Your task to perform on an android device: Show the shopping cart on bestbuy.com. Search for usb-a on bestbuy.com, select the first entry, and add it to the cart. Image 0: 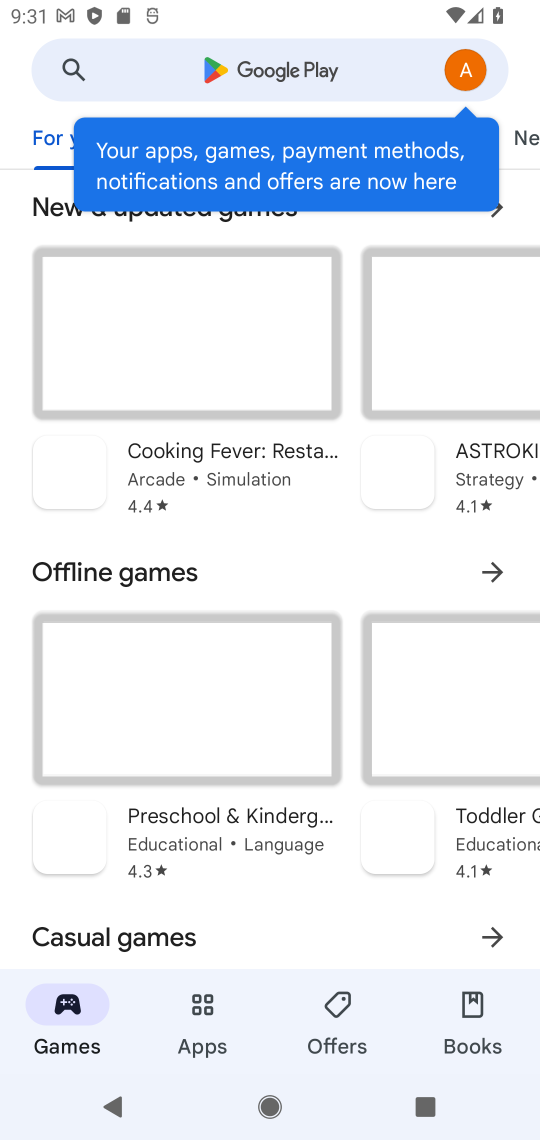
Step 0: press home button
Your task to perform on an android device: Show the shopping cart on bestbuy.com. Search for usb-a on bestbuy.com, select the first entry, and add it to the cart. Image 1: 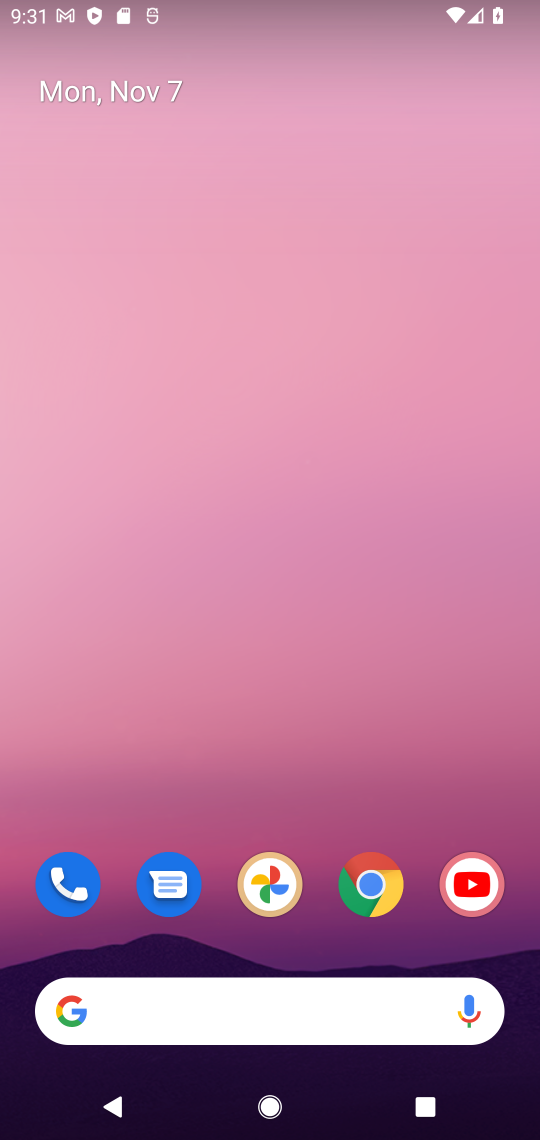
Step 1: click (375, 893)
Your task to perform on an android device: Show the shopping cart on bestbuy.com. Search for usb-a on bestbuy.com, select the first entry, and add it to the cart. Image 2: 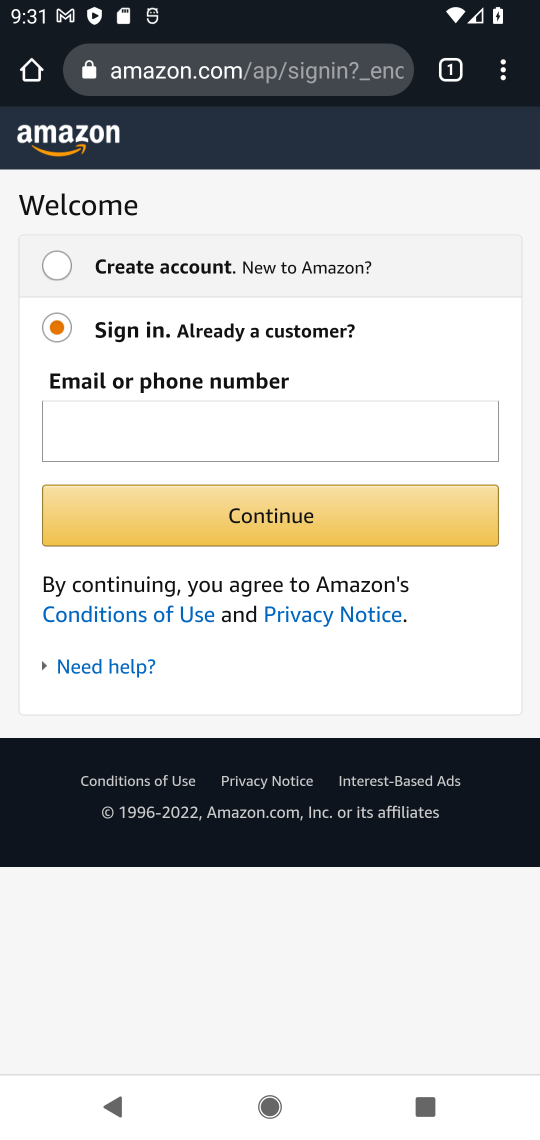
Step 2: click (341, 70)
Your task to perform on an android device: Show the shopping cart on bestbuy.com. Search for usb-a on bestbuy.com, select the first entry, and add it to the cart. Image 3: 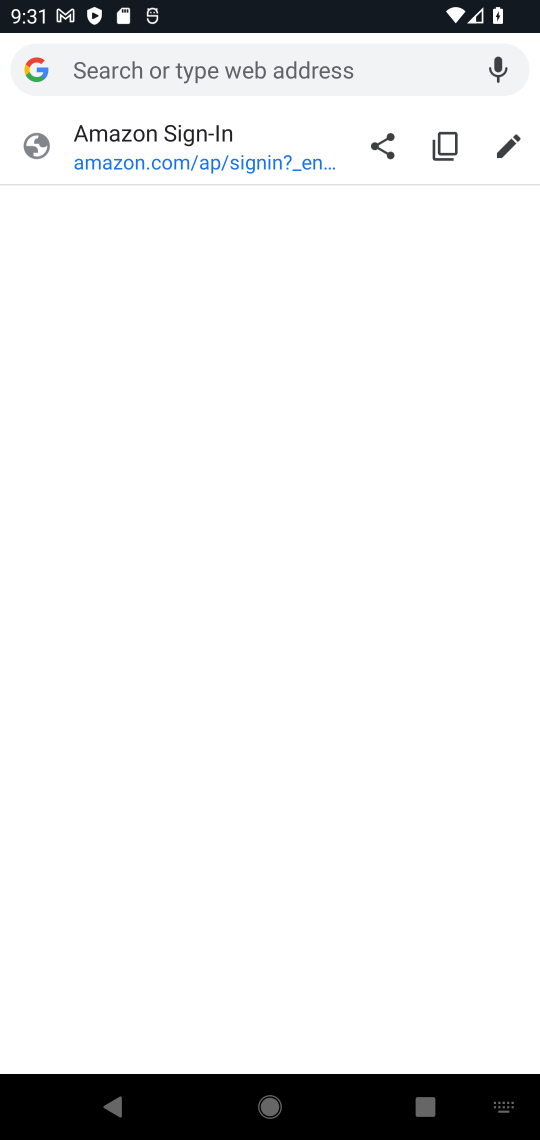
Step 3: type " bestbuy.com"
Your task to perform on an android device: Show the shopping cart on bestbuy.com. Search for usb-a on bestbuy.com, select the first entry, and add it to the cart. Image 4: 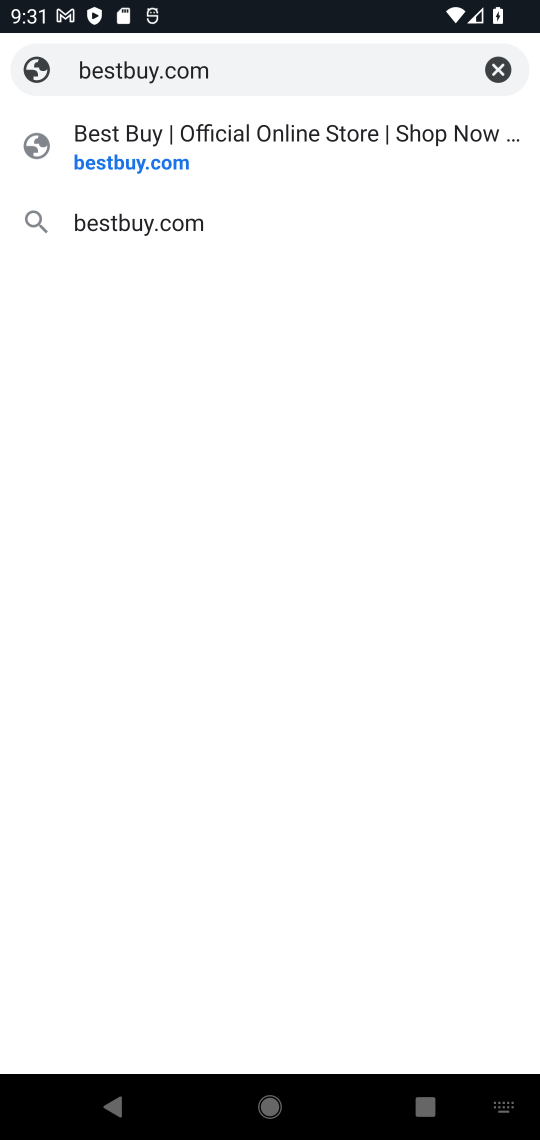
Step 4: click (152, 222)
Your task to perform on an android device: Show the shopping cart on bestbuy.com. Search for usb-a on bestbuy.com, select the first entry, and add it to the cart. Image 5: 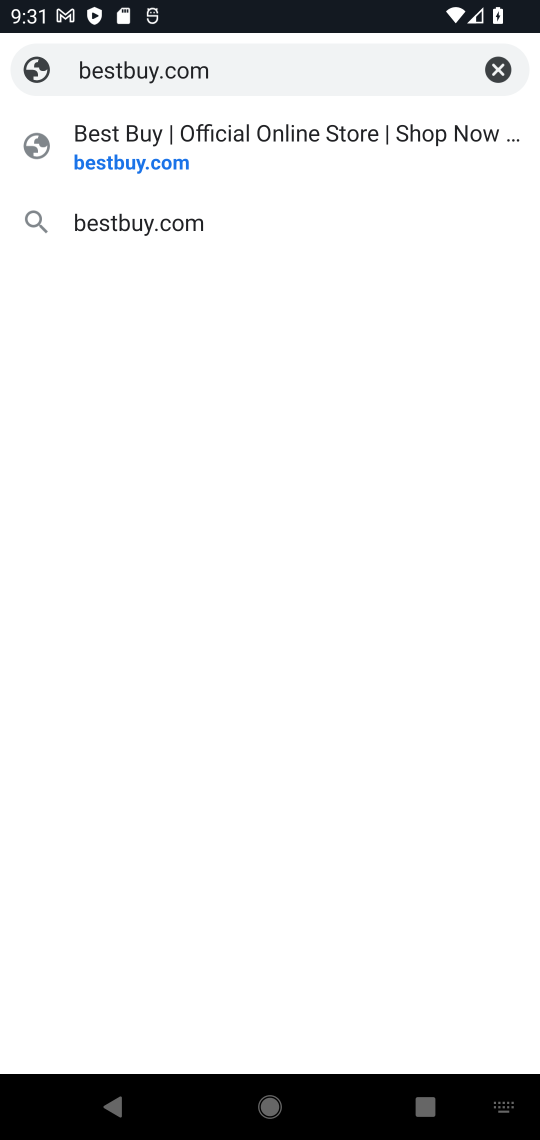
Step 5: click (152, 222)
Your task to perform on an android device: Show the shopping cart on bestbuy.com. Search for usb-a on bestbuy.com, select the first entry, and add it to the cart. Image 6: 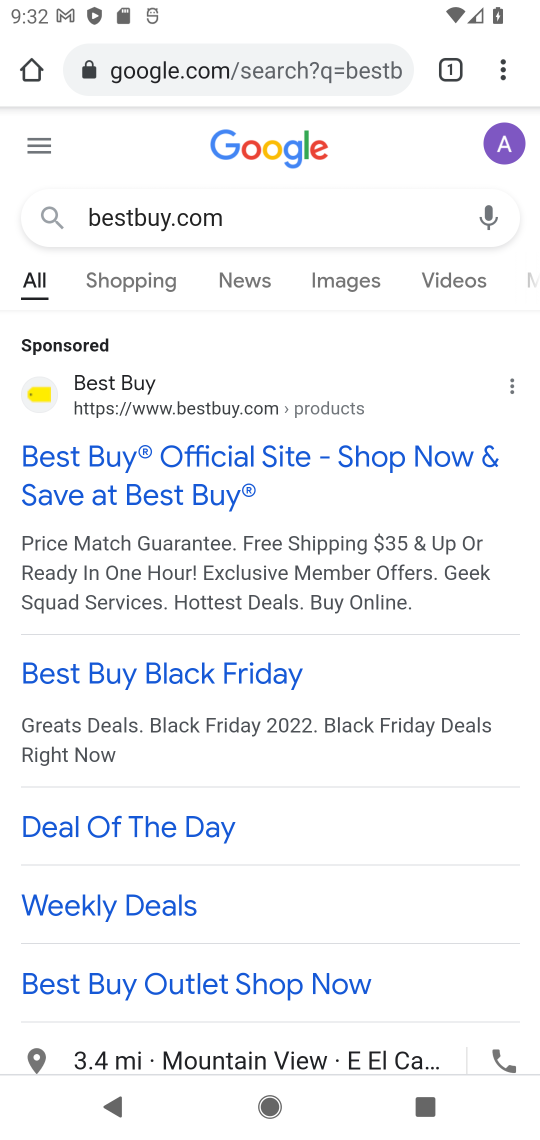
Step 6: click (167, 402)
Your task to perform on an android device: Show the shopping cart on bestbuy.com. Search for usb-a on bestbuy.com, select the first entry, and add it to the cart. Image 7: 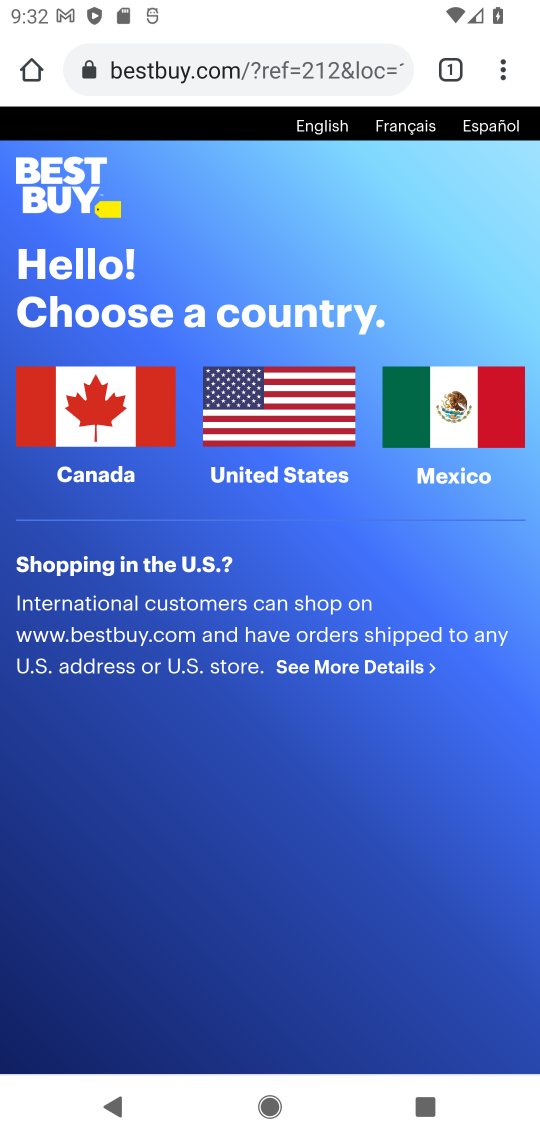
Step 7: click (293, 405)
Your task to perform on an android device: Show the shopping cart on bestbuy.com. Search for usb-a on bestbuy.com, select the first entry, and add it to the cart. Image 8: 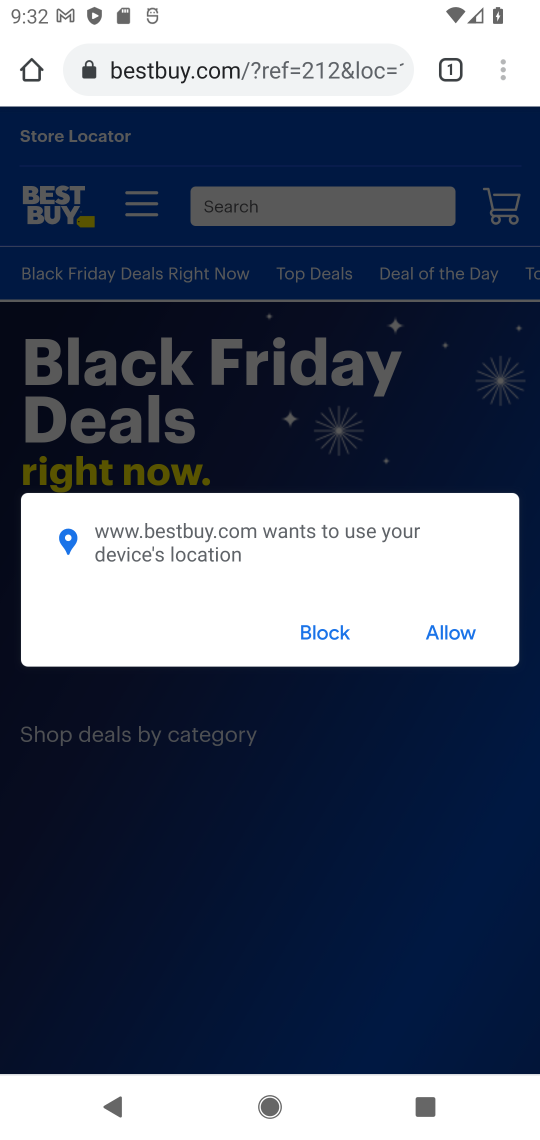
Step 8: click (309, 632)
Your task to perform on an android device: Show the shopping cart on bestbuy.com. Search for usb-a on bestbuy.com, select the first entry, and add it to the cart. Image 9: 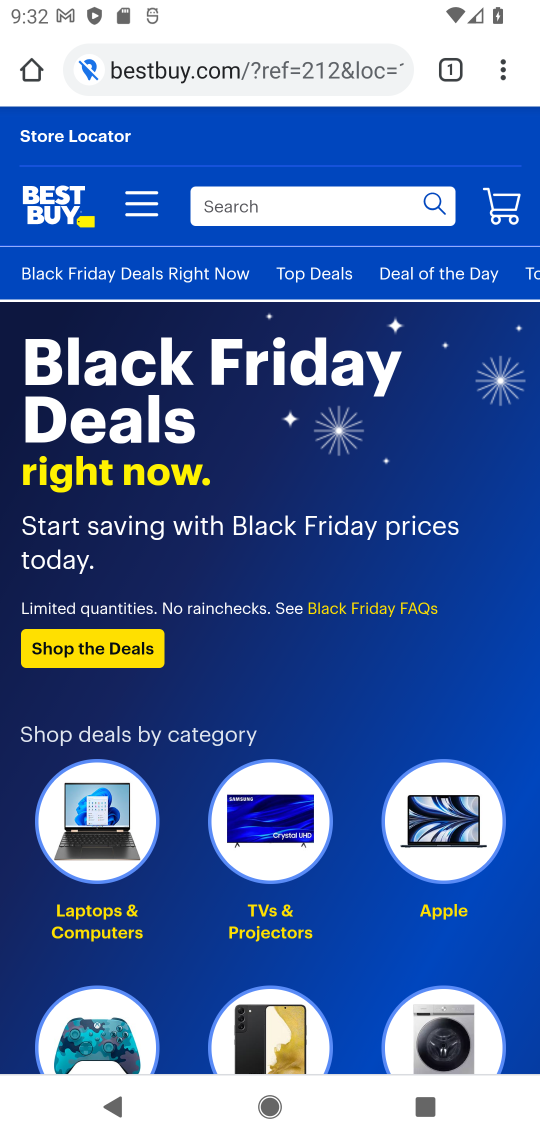
Step 9: click (512, 198)
Your task to perform on an android device: Show the shopping cart on bestbuy.com. Search for usb-a on bestbuy.com, select the first entry, and add it to the cart. Image 10: 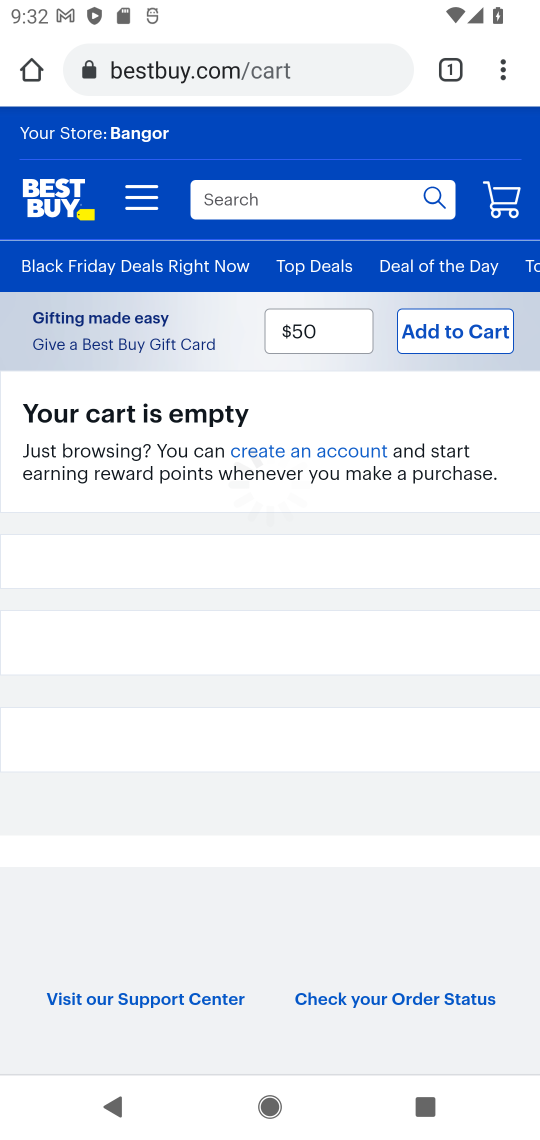
Step 10: click (254, 187)
Your task to perform on an android device: Show the shopping cart on bestbuy.com. Search for usb-a on bestbuy.com, select the first entry, and add it to the cart. Image 11: 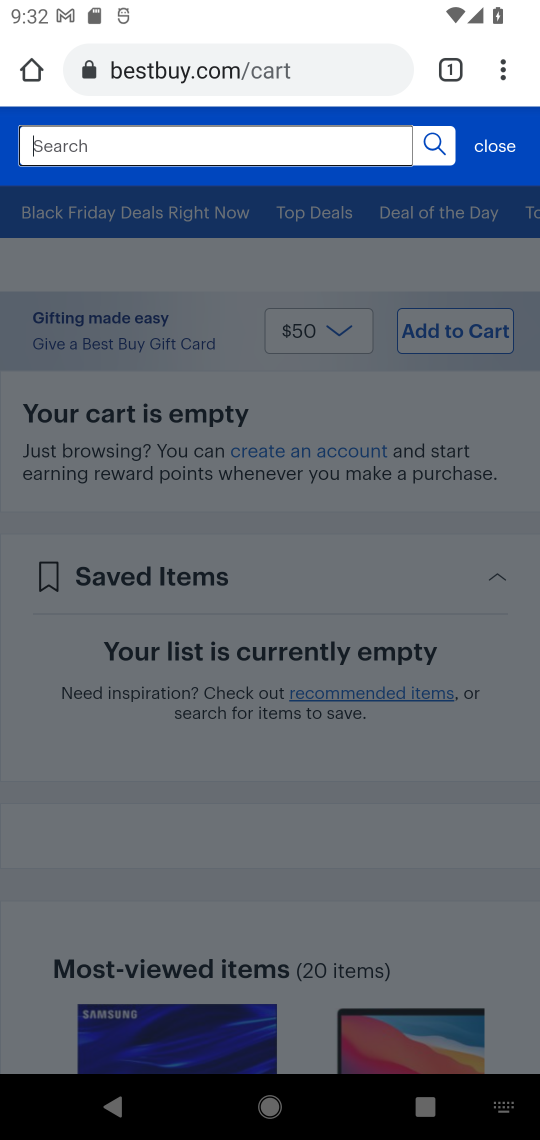
Step 11: type " usb-a"
Your task to perform on an android device: Show the shopping cart on bestbuy.com. Search for usb-a on bestbuy.com, select the first entry, and add it to the cart. Image 12: 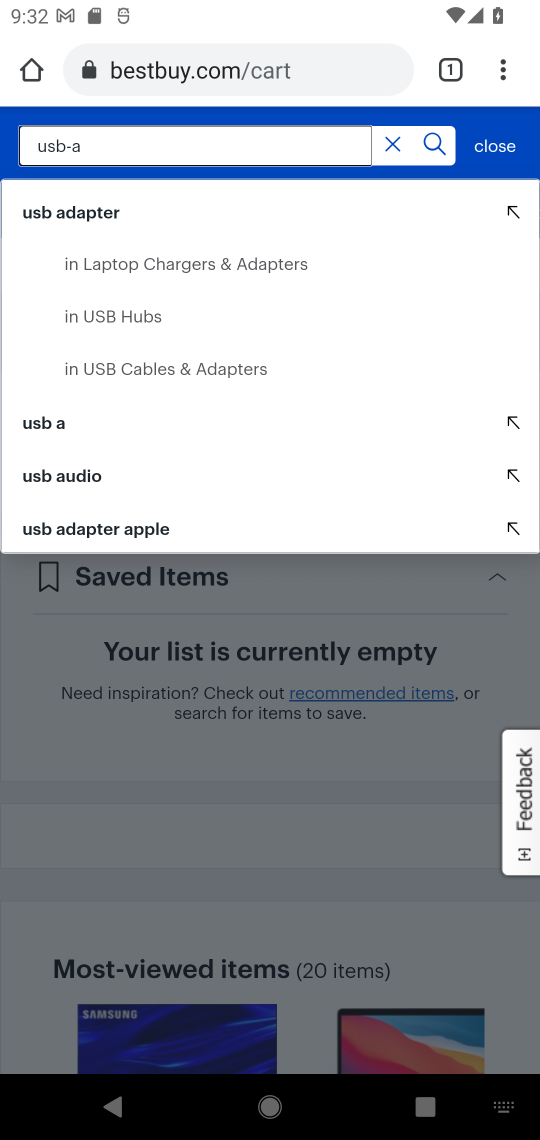
Step 12: click (46, 414)
Your task to perform on an android device: Show the shopping cart on bestbuy.com. Search for usb-a on bestbuy.com, select the first entry, and add it to the cart. Image 13: 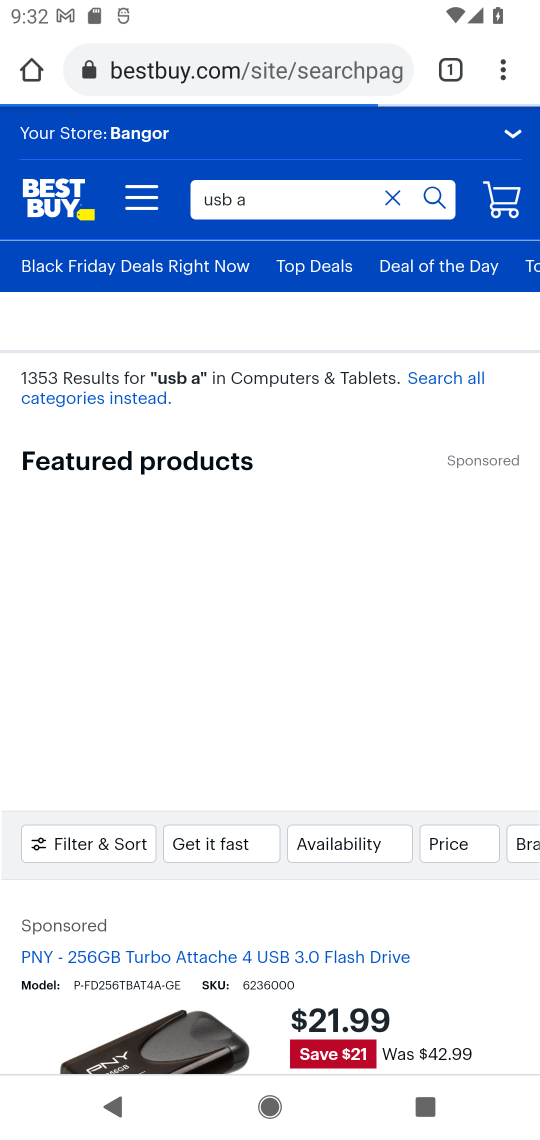
Step 13: drag from (410, 959) to (375, 622)
Your task to perform on an android device: Show the shopping cart on bestbuy.com. Search for usb-a on bestbuy.com, select the first entry, and add it to the cart. Image 14: 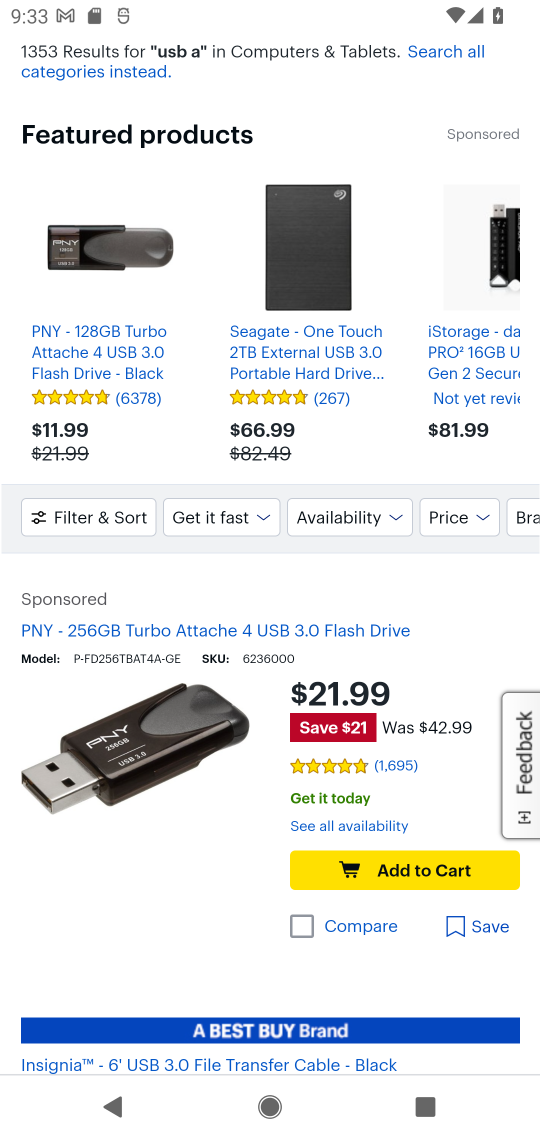
Step 14: drag from (396, 977) to (415, 519)
Your task to perform on an android device: Show the shopping cart on bestbuy.com. Search for usb-a on bestbuy.com, select the first entry, and add it to the cart. Image 15: 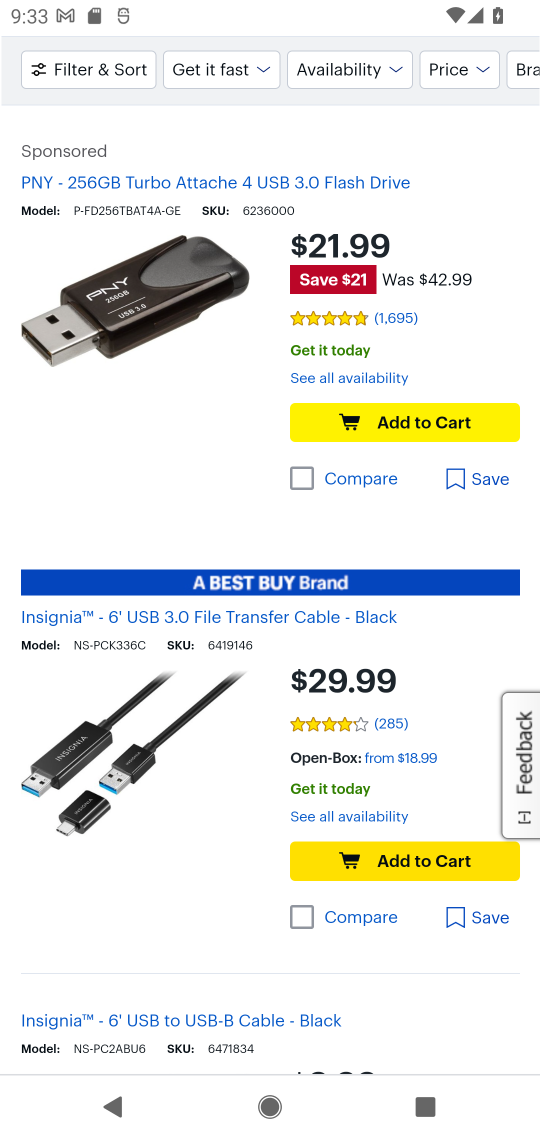
Step 15: drag from (421, 944) to (481, 656)
Your task to perform on an android device: Show the shopping cart on bestbuy.com. Search for usb-a on bestbuy.com, select the first entry, and add it to the cart. Image 16: 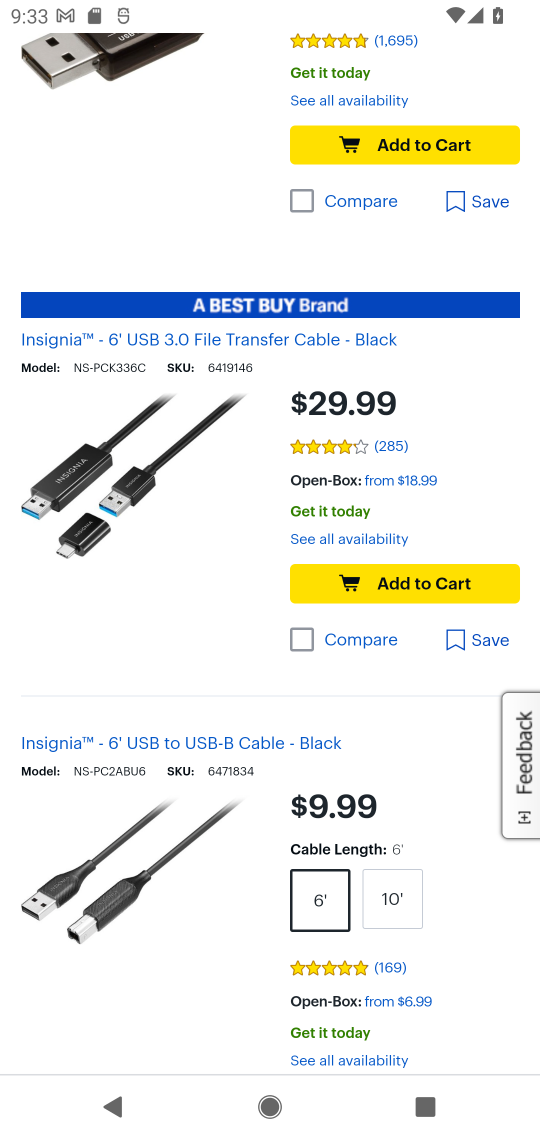
Step 16: drag from (445, 920) to (468, 533)
Your task to perform on an android device: Show the shopping cart on bestbuy.com. Search for usb-a on bestbuy.com, select the first entry, and add it to the cart. Image 17: 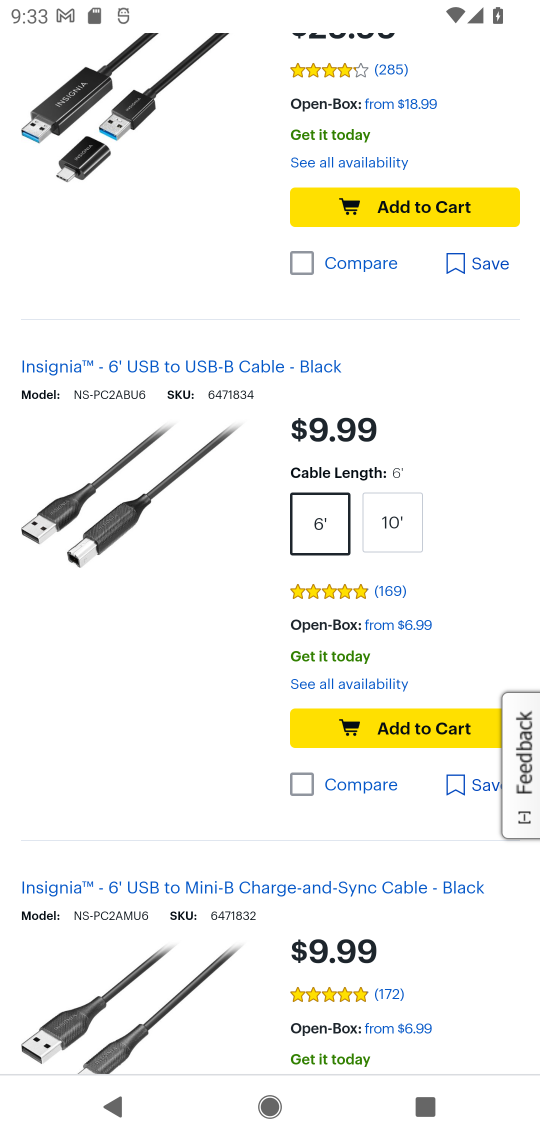
Step 17: drag from (195, 680) to (222, 968)
Your task to perform on an android device: Show the shopping cart on bestbuy.com. Search for usb-a on bestbuy.com, select the first entry, and add it to the cart. Image 18: 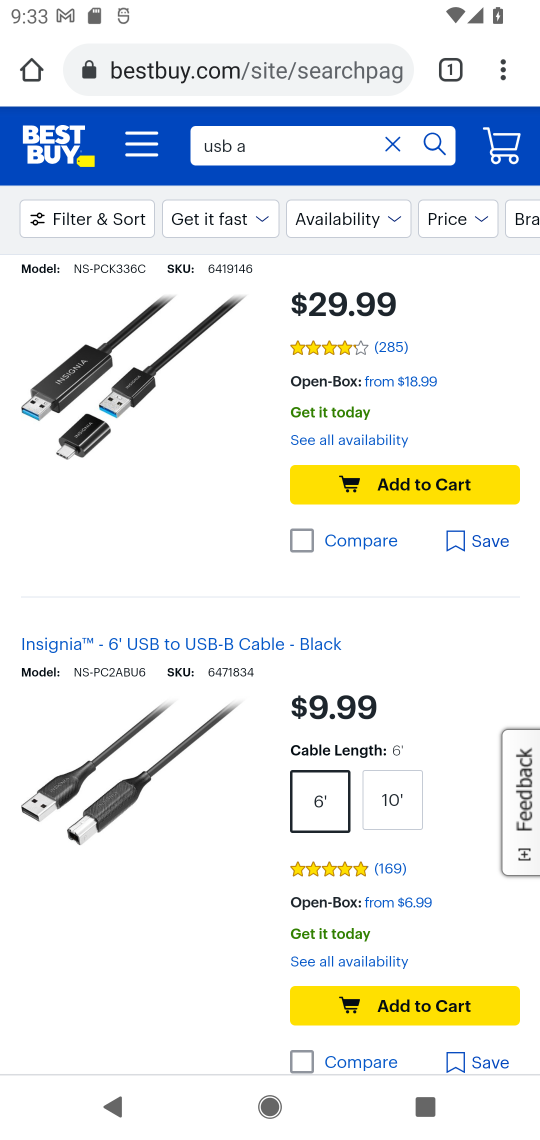
Step 18: drag from (203, 429) to (239, 828)
Your task to perform on an android device: Show the shopping cart on bestbuy.com. Search for usb-a on bestbuy.com, select the first entry, and add it to the cart. Image 19: 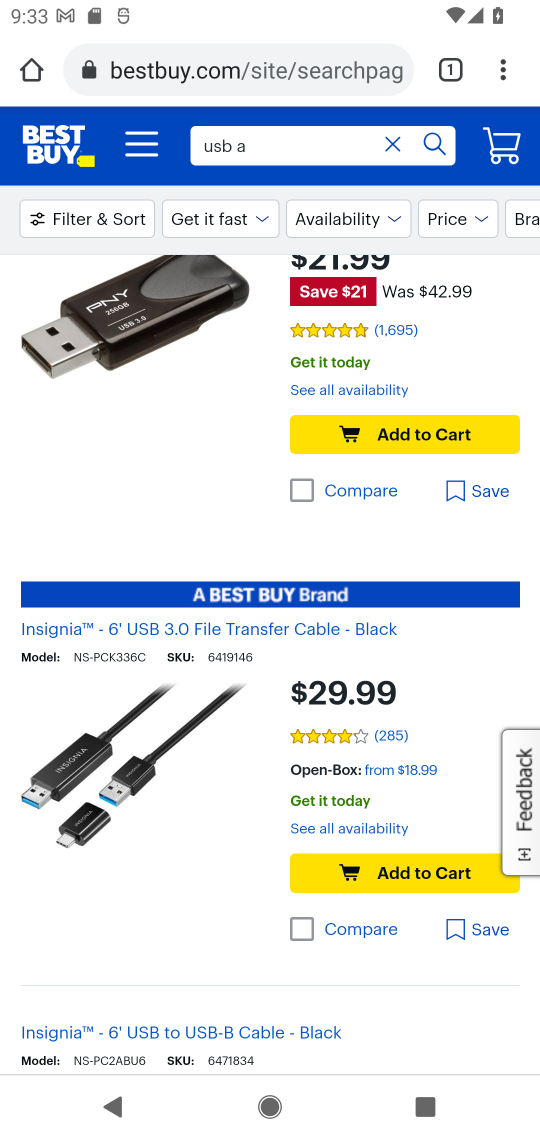
Step 19: drag from (246, 852) to (216, 347)
Your task to perform on an android device: Show the shopping cart on bestbuy.com. Search for usb-a on bestbuy.com, select the first entry, and add it to the cart. Image 20: 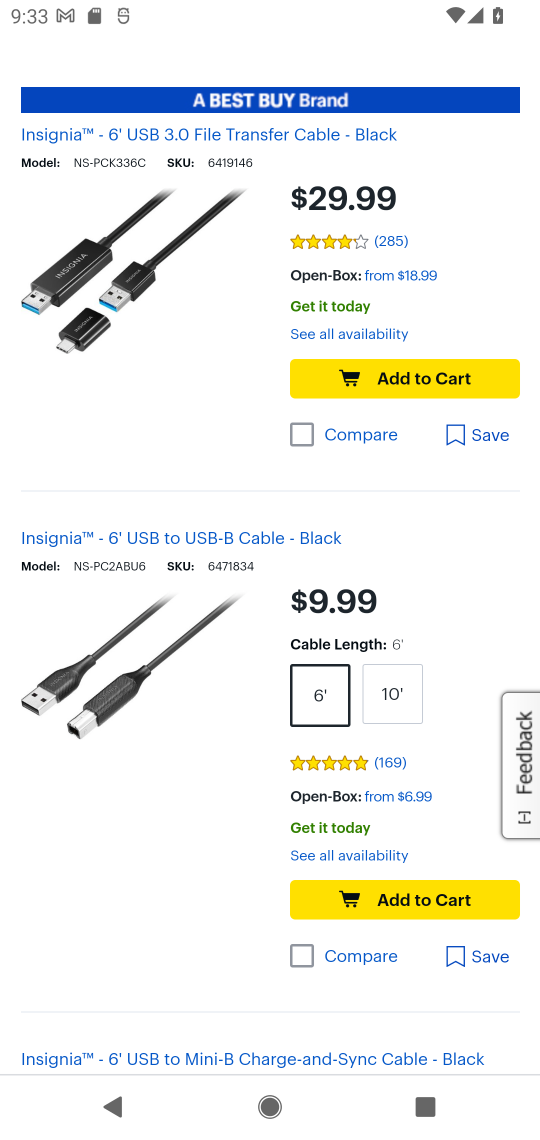
Step 20: drag from (210, 772) to (200, 402)
Your task to perform on an android device: Show the shopping cart on bestbuy.com. Search for usb-a on bestbuy.com, select the first entry, and add it to the cart. Image 21: 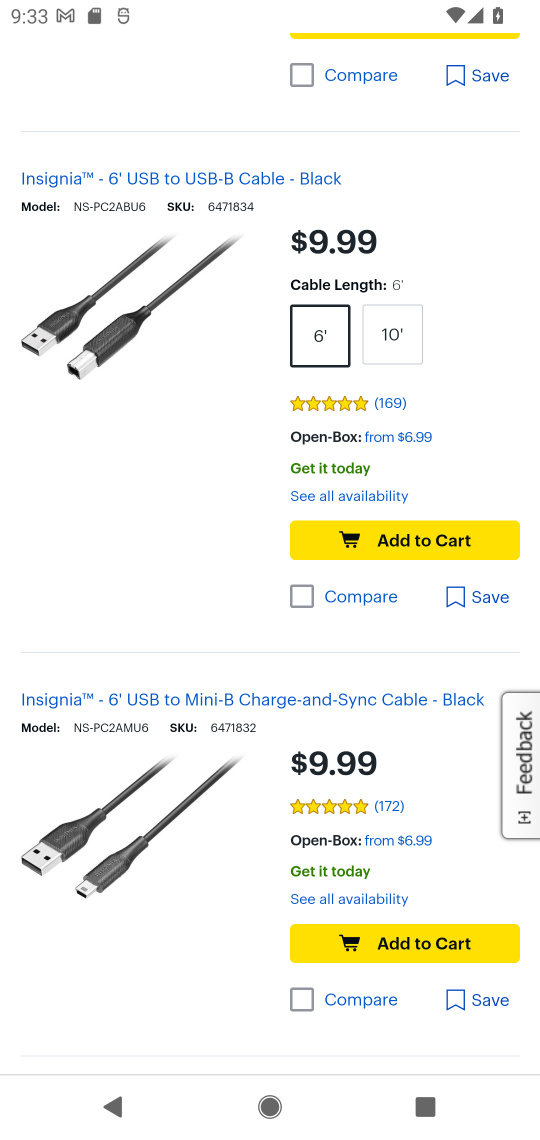
Step 21: drag from (215, 805) to (182, 378)
Your task to perform on an android device: Show the shopping cart on bestbuy.com. Search for usb-a on bestbuy.com, select the first entry, and add it to the cart. Image 22: 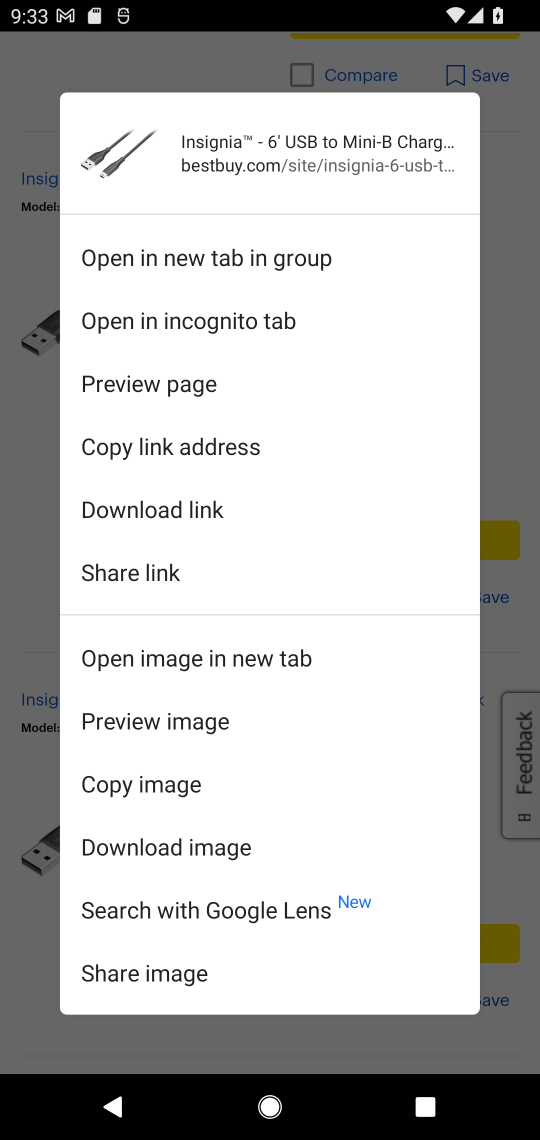
Step 22: click (502, 430)
Your task to perform on an android device: Show the shopping cart on bestbuy.com. Search for usb-a on bestbuy.com, select the first entry, and add it to the cart. Image 23: 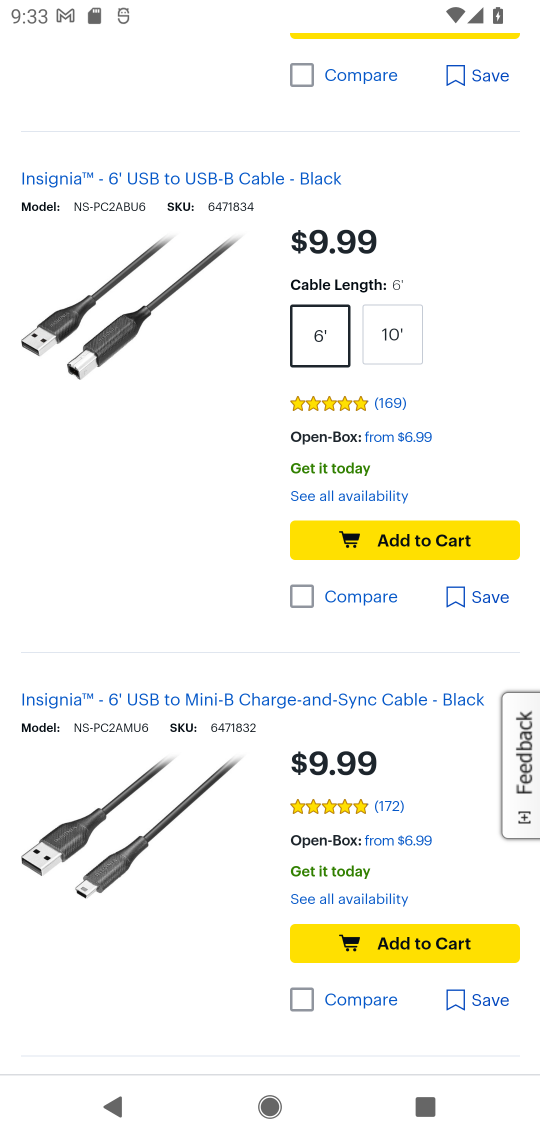
Step 23: drag from (166, 848) to (248, 318)
Your task to perform on an android device: Show the shopping cart on bestbuy.com. Search for usb-a on bestbuy.com, select the first entry, and add it to the cart. Image 24: 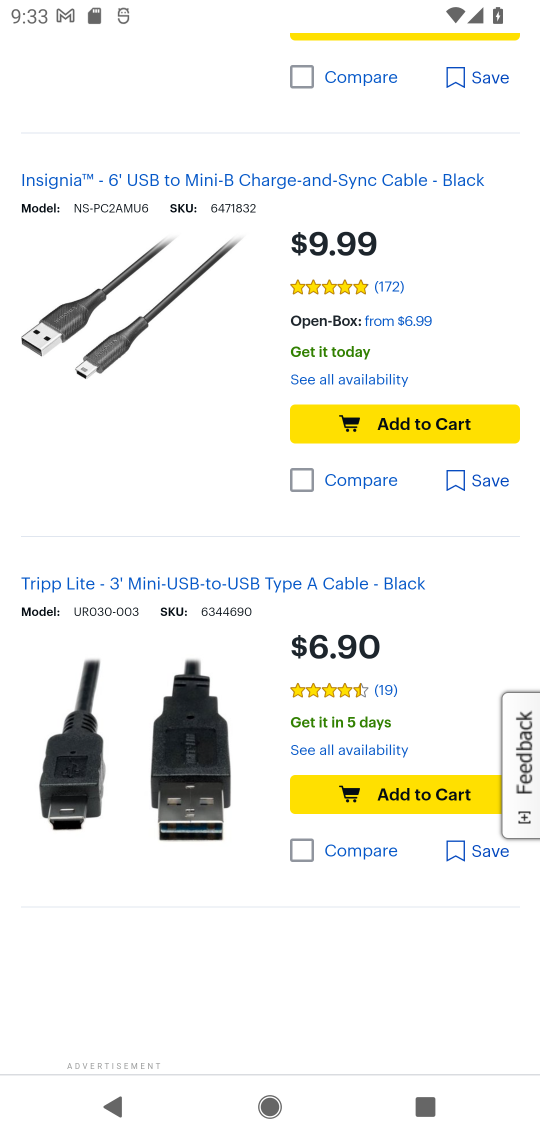
Step 24: click (151, 749)
Your task to perform on an android device: Show the shopping cart on bestbuy.com. Search for usb-a on bestbuy.com, select the first entry, and add it to the cart. Image 25: 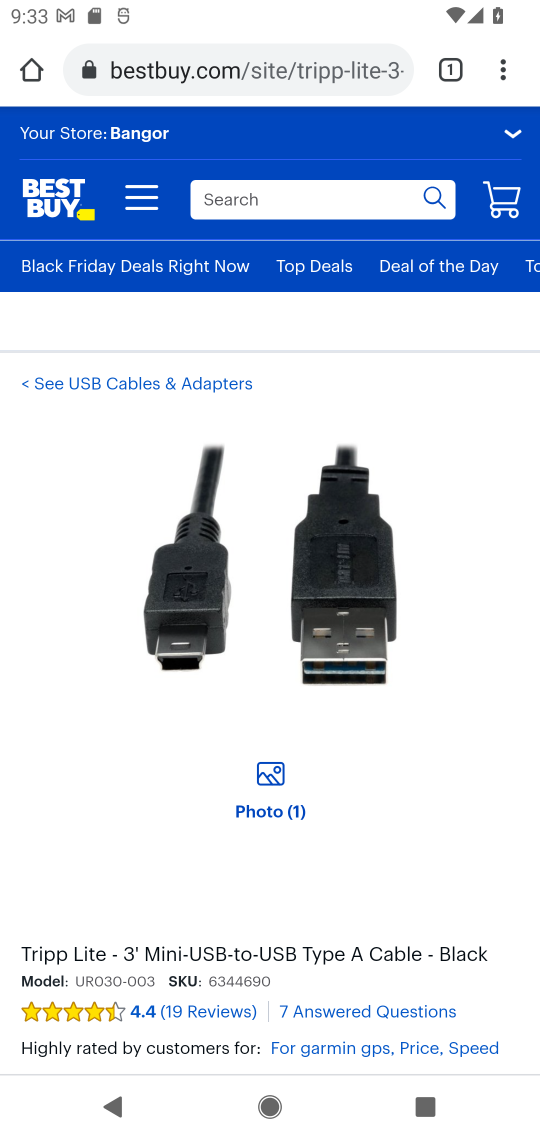
Step 25: drag from (377, 751) to (280, 258)
Your task to perform on an android device: Show the shopping cart on bestbuy.com. Search for usb-a on bestbuy.com, select the first entry, and add it to the cart. Image 26: 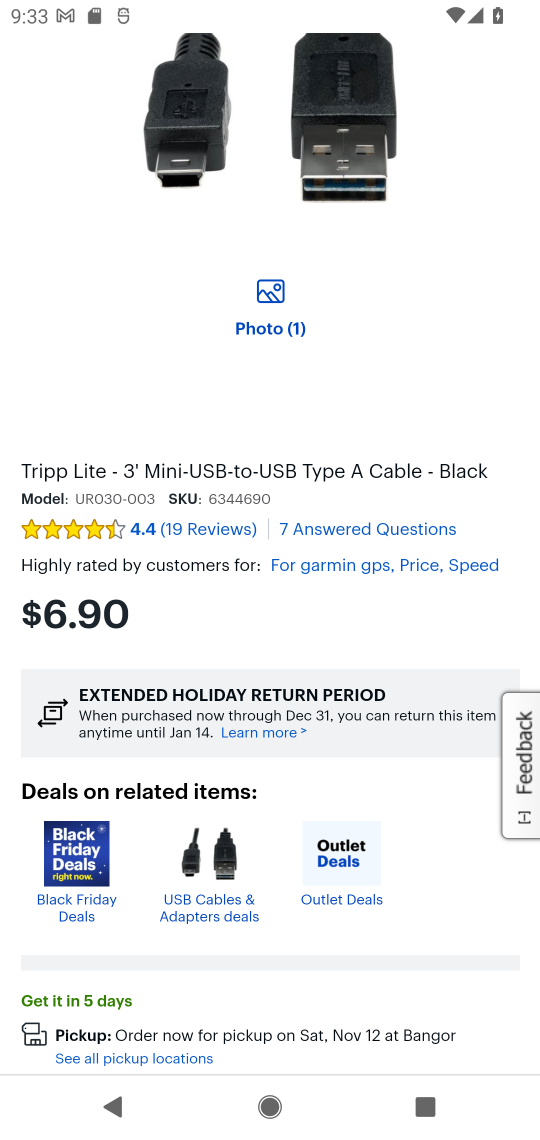
Step 26: drag from (361, 667) to (426, 259)
Your task to perform on an android device: Show the shopping cart on bestbuy.com. Search for usb-a on bestbuy.com, select the first entry, and add it to the cart. Image 27: 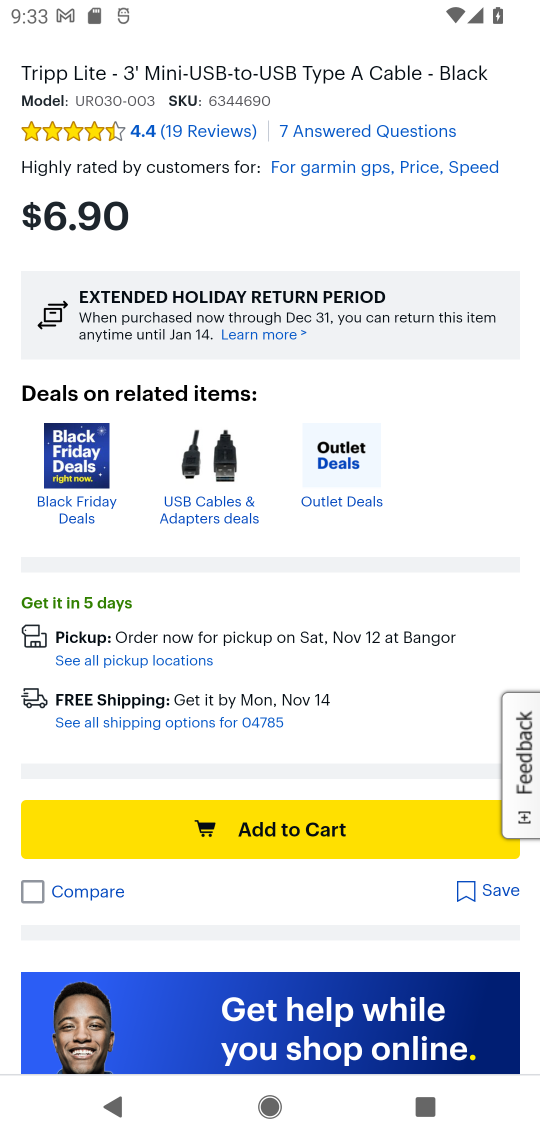
Step 27: click (319, 822)
Your task to perform on an android device: Show the shopping cart on bestbuy.com. Search for usb-a on bestbuy.com, select the first entry, and add it to the cart. Image 28: 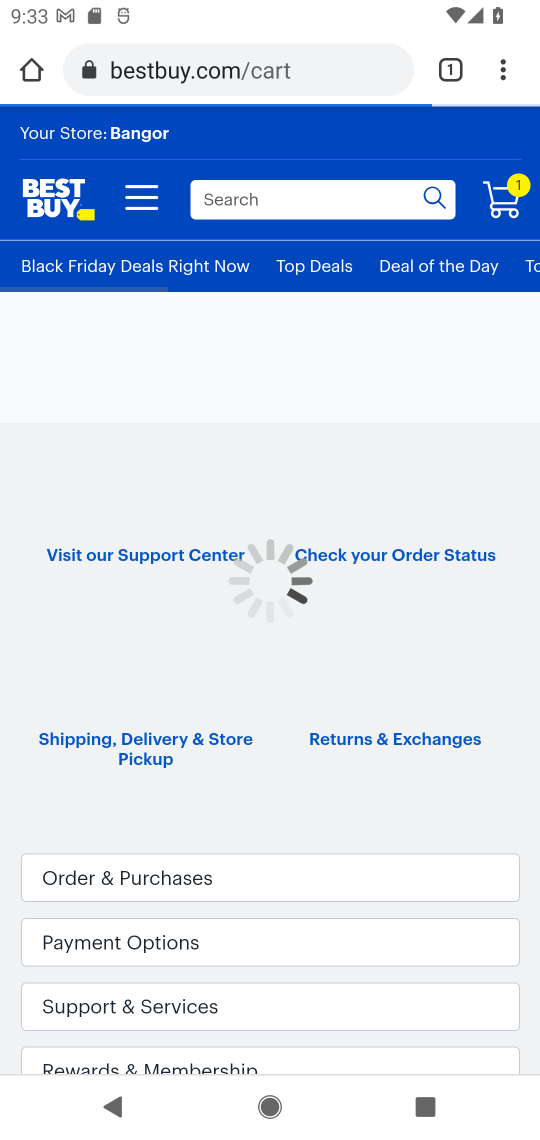
Step 28: task complete